Your task to perform on an android device: Empty the shopping cart on walmart.com. Search for "razer blackwidow" on walmart.com, select the first entry, add it to the cart, then select checkout. Image 0: 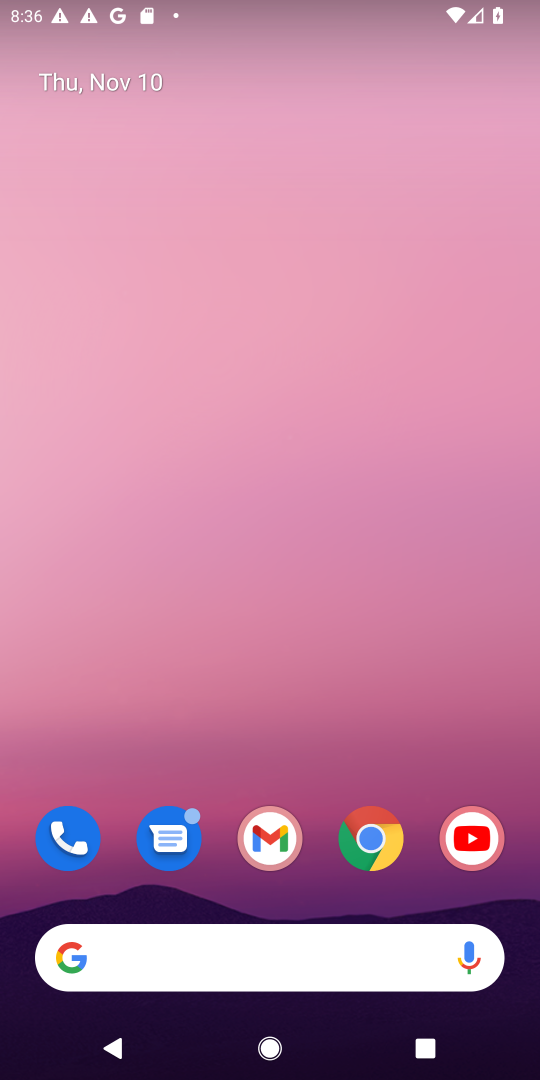
Step 0: drag from (312, 915) to (351, 21)
Your task to perform on an android device: Empty the shopping cart on walmart.com. Search for "razer blackwidow" on walmart.com, select the first entry, add it to the cart, then select checkout. Image 1: 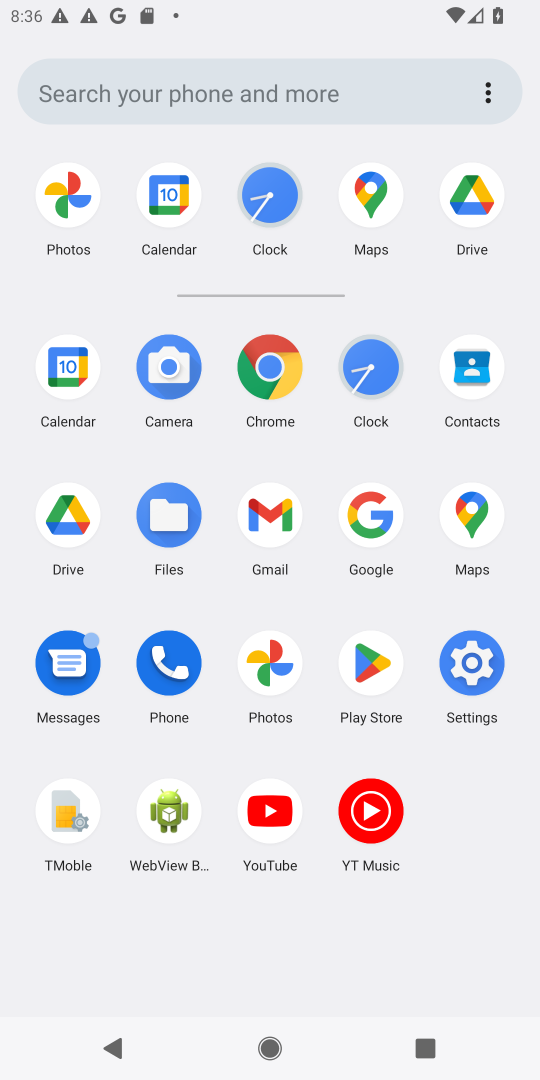
Step 1: click (286, 358)
Your task to perform on an android device: Empty the shopping cart on walmart.com. Search for "razer blackwidow" on walmart.com, select the first entry, add it to the cart, then select checkout. Image 2: 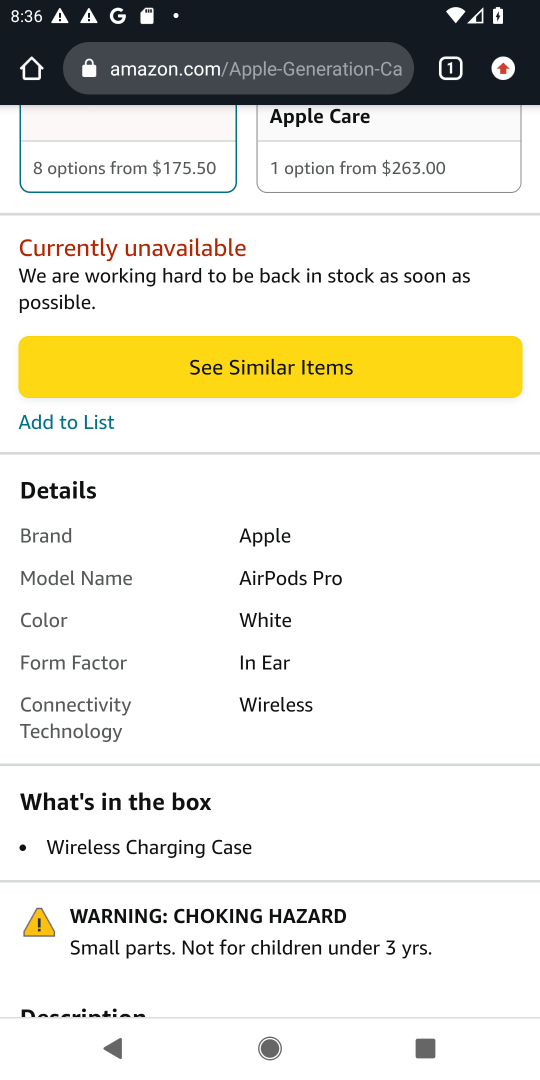
Step 2: click (276, 82)
Your task to perform on an android device: Empty the shopping cart on walmart.com. Search for "razer blackwidow" on walmart.com, select the first entry, add it to the cart, then select checkout. Image 3: 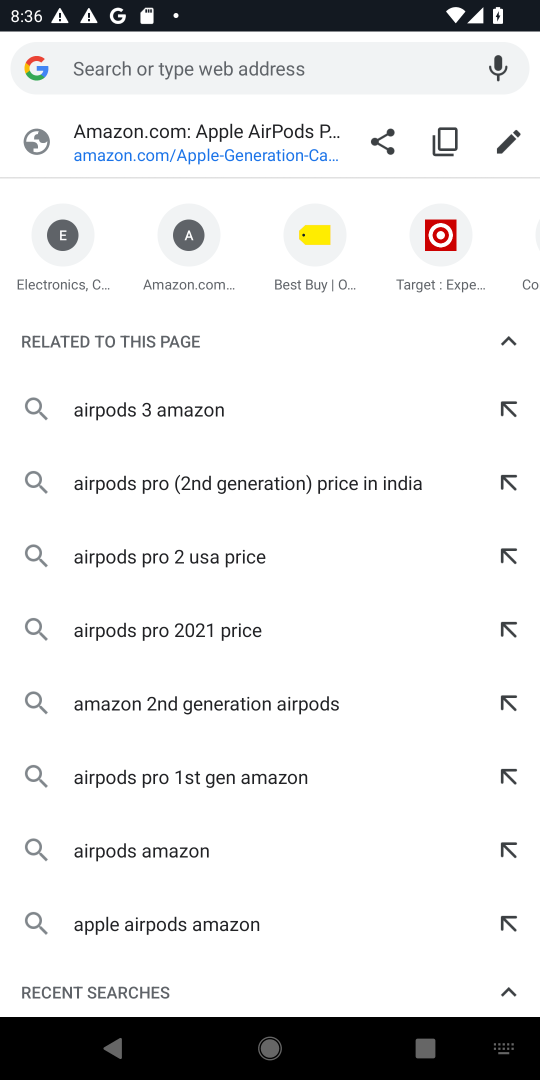
Step 3: type "walmart.com"
Your task to perform on an android device: Empty the shopping cart on walmart.com. Search for "razer blackwidow" on walmart.com, select the first entry, add it to the cart, then select checkout. Image 4: 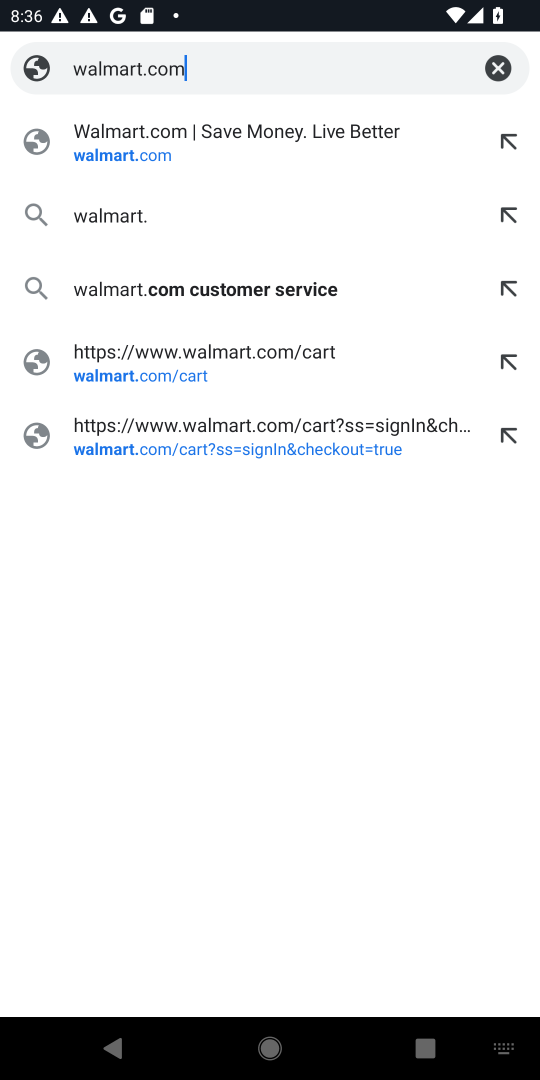
Step 4: press enter
Your task to perform on an android device: Empty the shopping cart on walmart.com. Search for "razer blackwidow" on walmart.com, select the first entry, add it to the cart, then select checkout. Image 5: 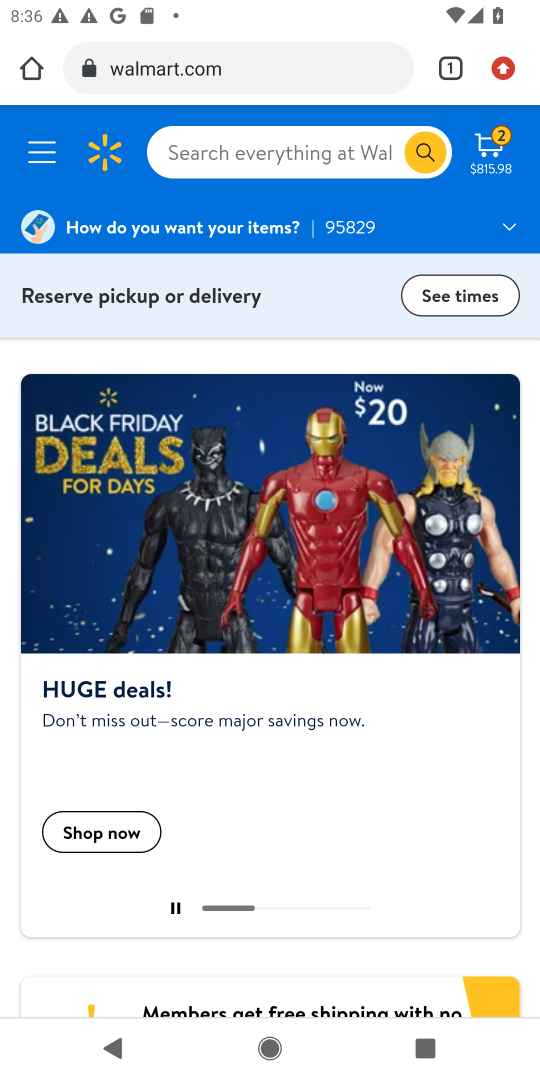
Step 5: click (498, 139)
Your task to perform on an android device: Empty the shopping cart on walmart.com. Search for "razer blackwidow" on walmart.com, select the first entry, add it to the cart, then select checkout. Image 6: 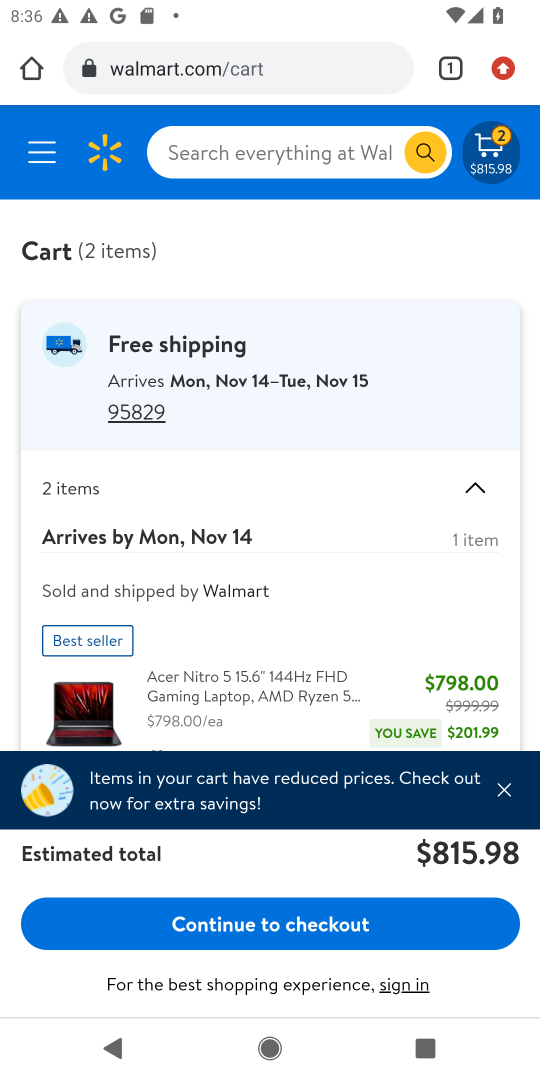
Step 6: drag from (168, 595) to (282, 49)
Your task to perform on an android device: Empty the shopping cart on walmart.com. Search for "razer blackwidow" on walmart.com, select the first entry, add it to the cart, then select checkout. Image 7: 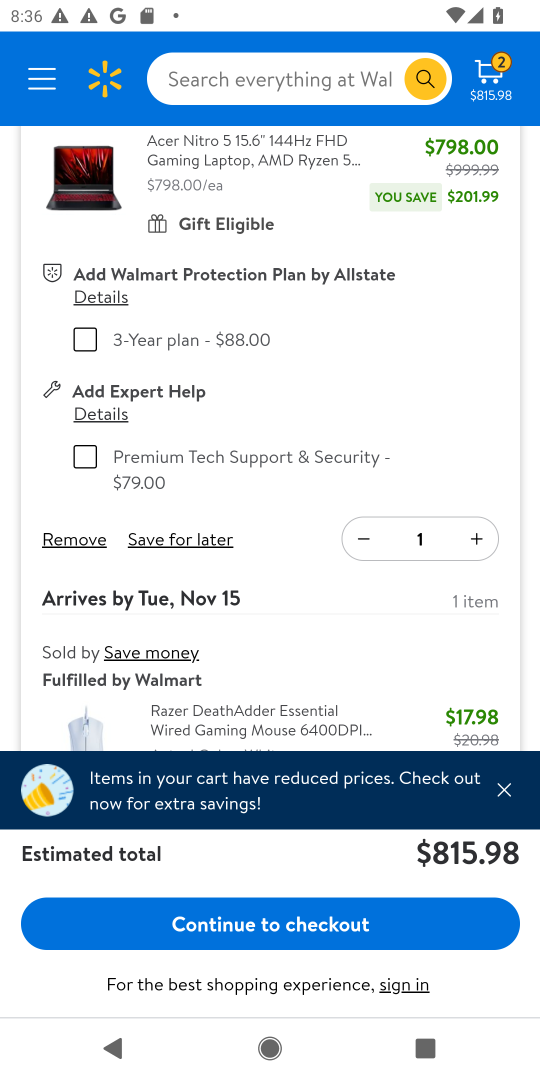
Step 7: click (68, 539)
Your task to perform on an android device: Empty the shopping cart on walmart.com. Search for "razer blackwidow" on walmart.com, select the first entry, add it to the cart, then select checkout. Image 8: 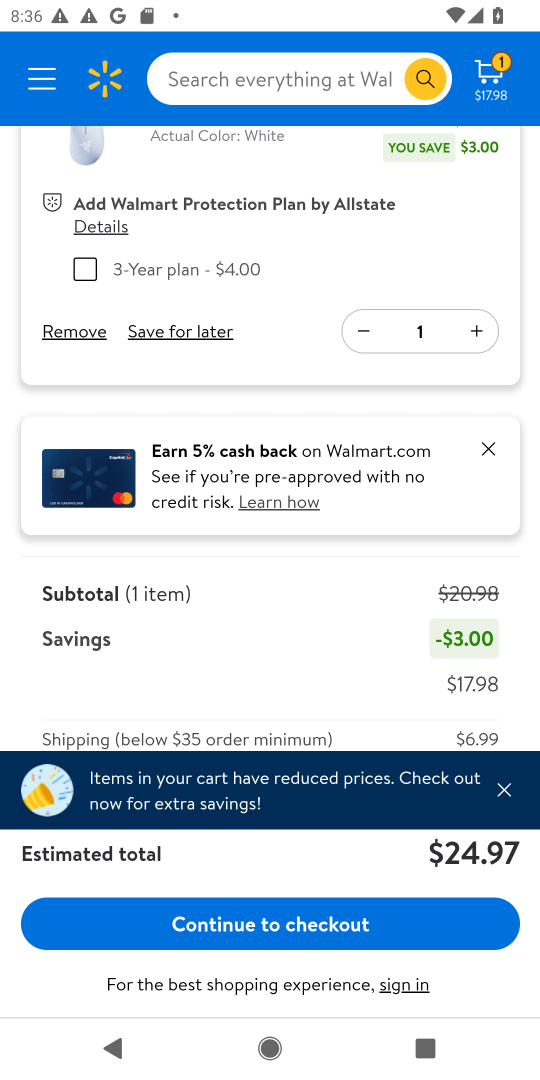
Step 8: click (75, 324)
Your task to perform on an android device: Empty the shopping cart on walmart.com. Search for "razer blackwidow" on walmart.com, select the first entry, add it to the cart, then select checkout. Image 9: 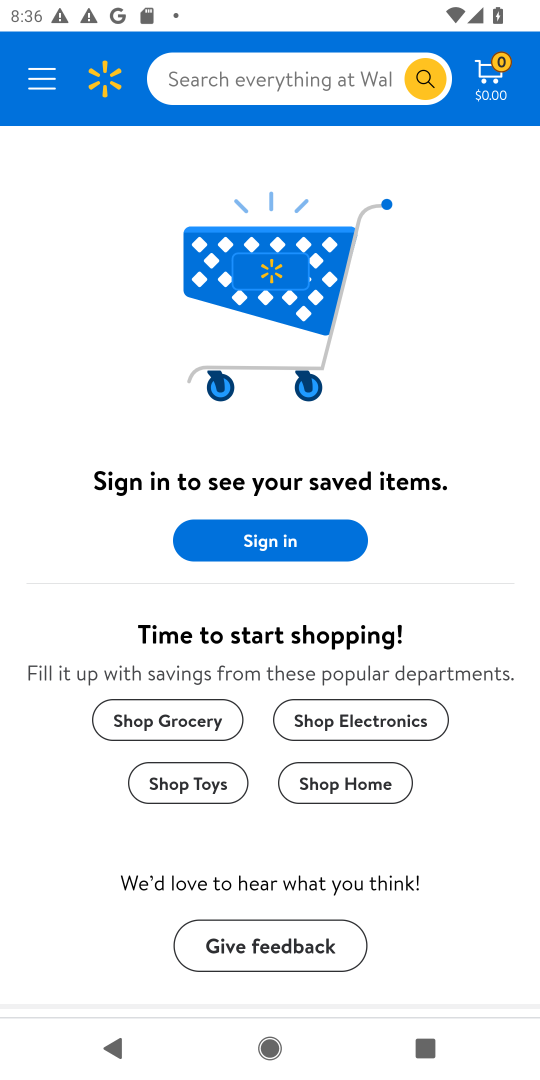
Step 9: click (326, 73)
Your task to perform on an android device: Empty the shopping cart on walmart.com. Search for "razer blackwidow" on walmart.com, select the first entry, add it to the cart, then select checkout. Image 10: 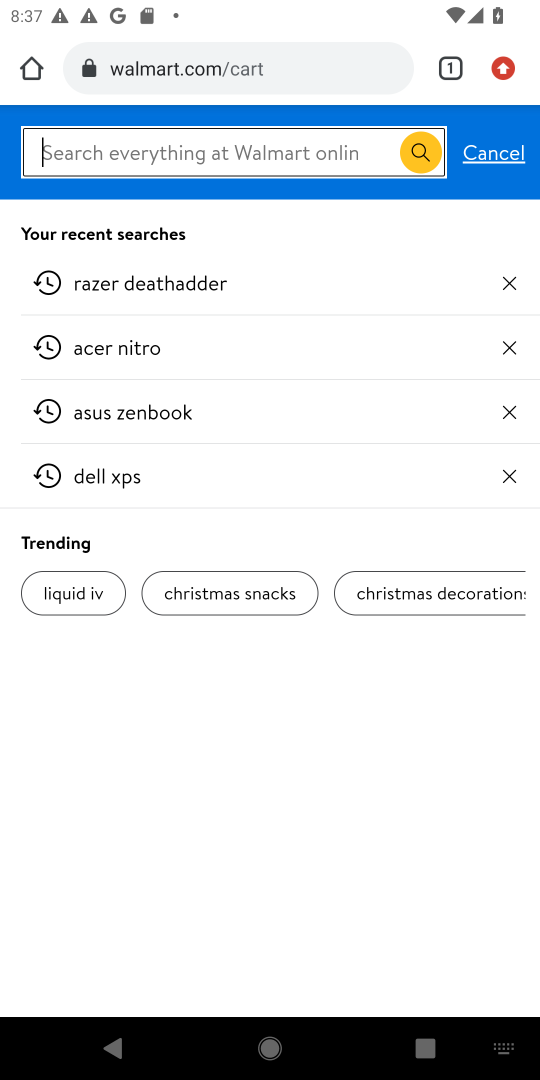
Step 10: type "razer blackwidow"
Your task to perform on an android device: Empty the shopping cart on walmart.com. Search for "razer blackwidow" on walmart.com, select the first entry, add it to the cart, then select checkout. Image 11: 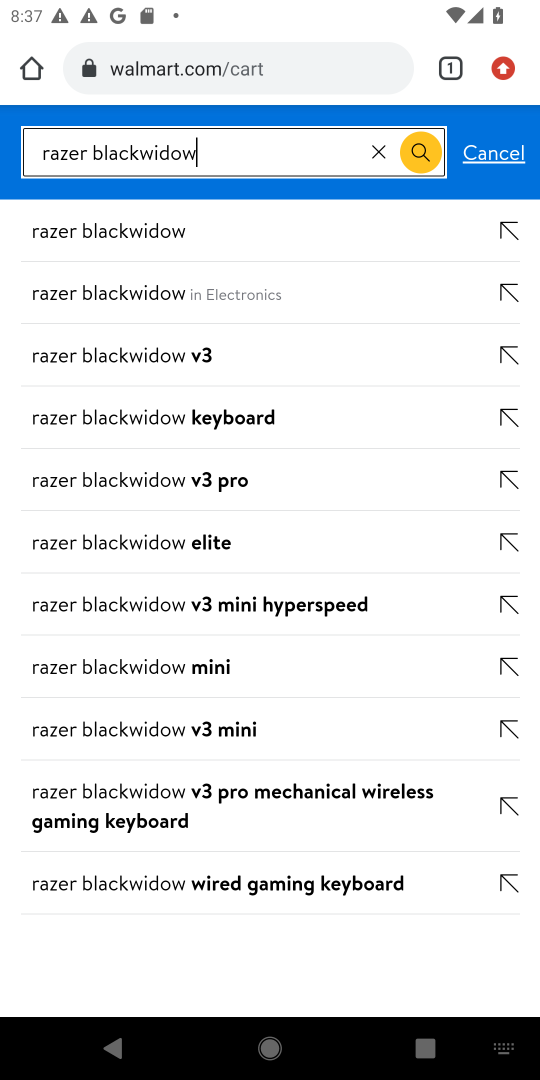
Step 11: press enter
Your task to perform on an android device: Empty the shopping cart on walmart.com. Search for "razer blackwidow" on walmart.com, select the first entry, add it to the cart, then select checkout. Image 12: 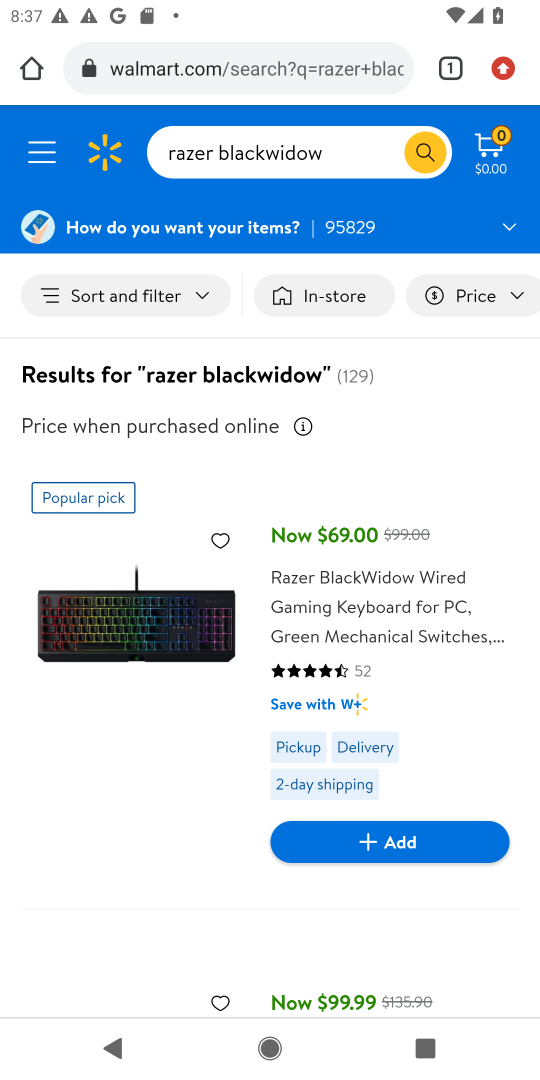
Step 12: click (424, 837)
Your task to perform on an android device: Empty the shopping cart on walmart.com. Search for "razer blackwidow" on walmart.com, select the first entry, add it to the cart, then select checkout. Image 13: 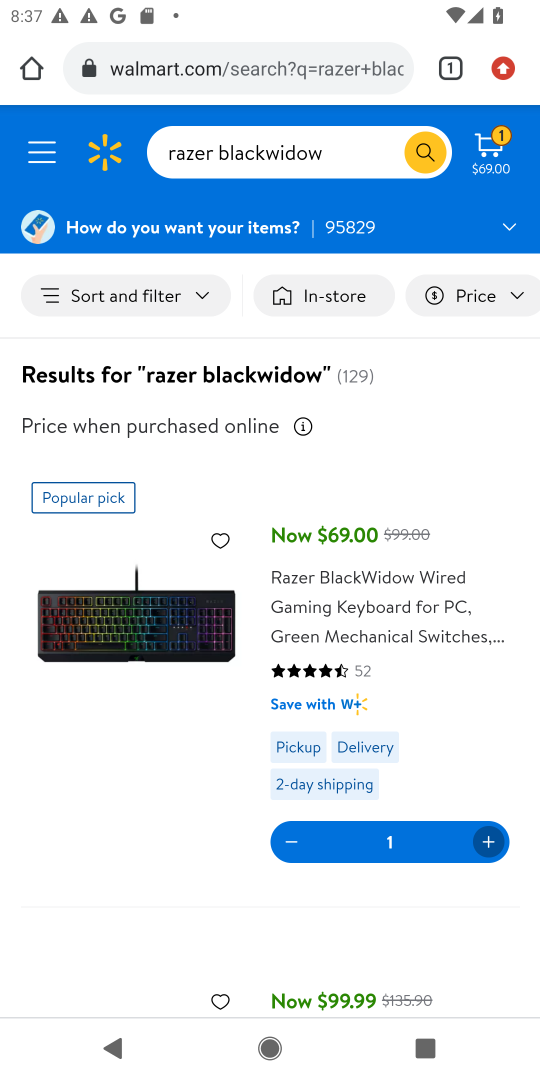
Step 13: drag from (316, 706) to (323, 273)
Your task to perform on an android device: Empty the shopping cart on walmart.com. Search for "razer blackwidow" on walmart.com, select the first entry, add it to the cart, then select checkout. Image 14: 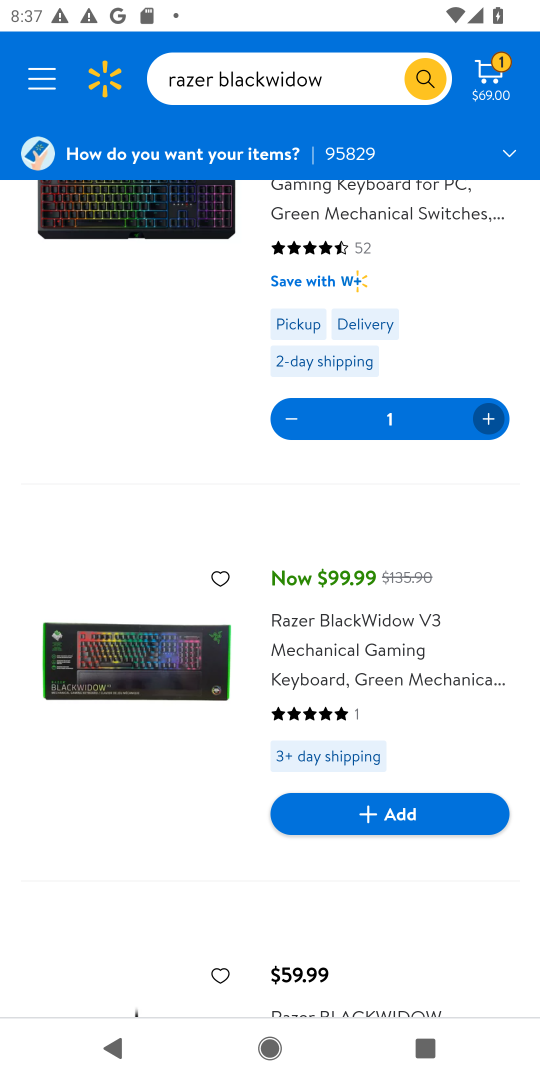
Step 14: click (501, 62)
Your task to perform on an android device: Empty the shopping cart on walmart.com. Search for "razer blackwidow" on walmart.com, select the first entry, add it to the cart, then select checkout. Image 15: 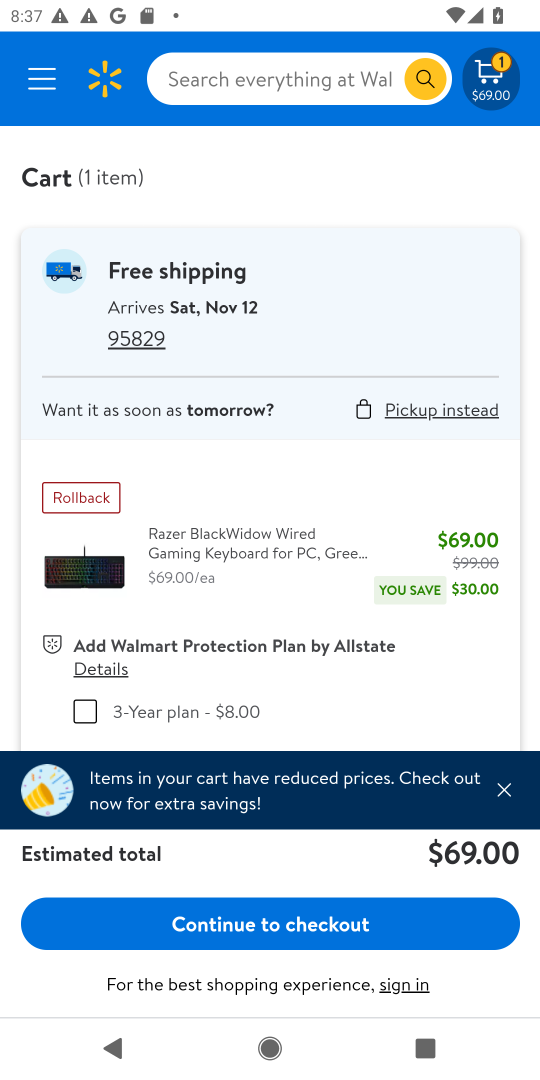
Step 15: click (344, 931)
Your task to perform on an android device: Empty the shopping cart on walmart.com. Search for "razer blackwidow" on walmart.com, select the first entry, add it to the cart, then select checkout. Image 16: 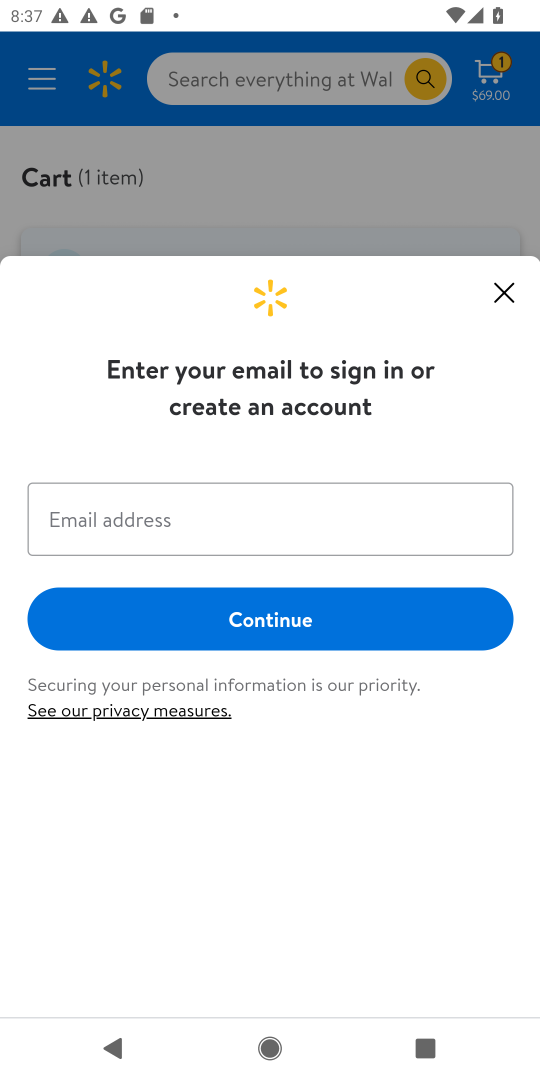
Step 16: task complete